Your task to perform on an android device: Clear the cart on amazon.com. Image 0: 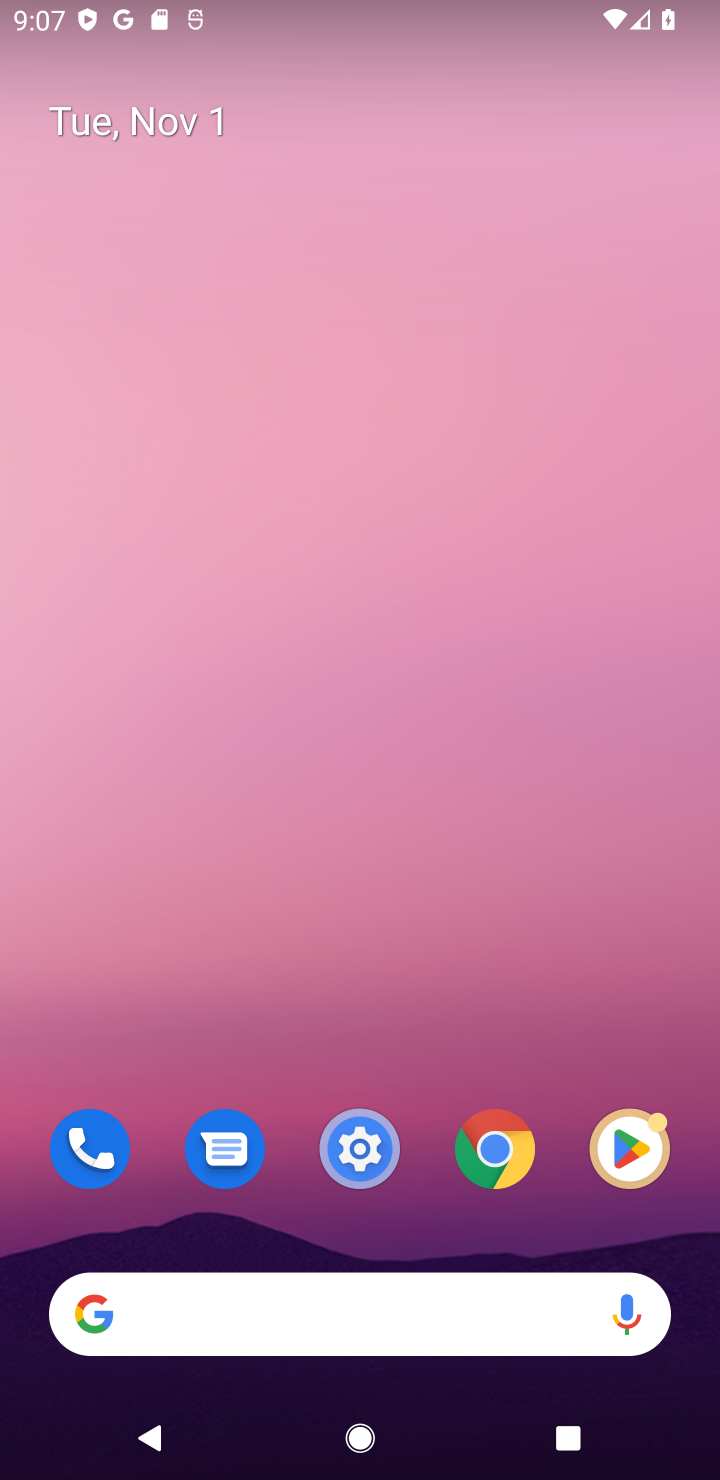
Step 0: press home button
Your task to perform on an android device: Clear the cart on amazon.com. Image 1: 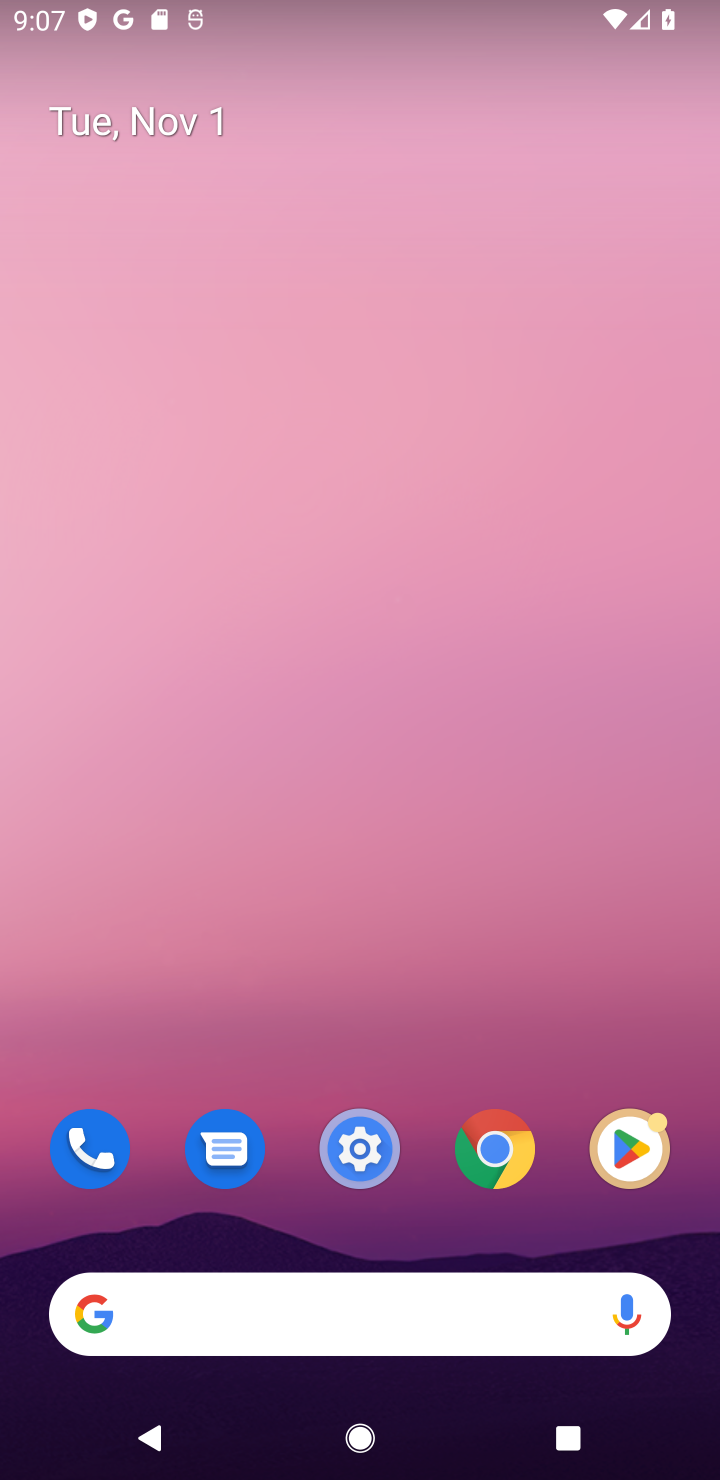
Step 1: click (145, 1304)
Your task to perform on an android device: Clear the cart on amazon.com. Image 2: 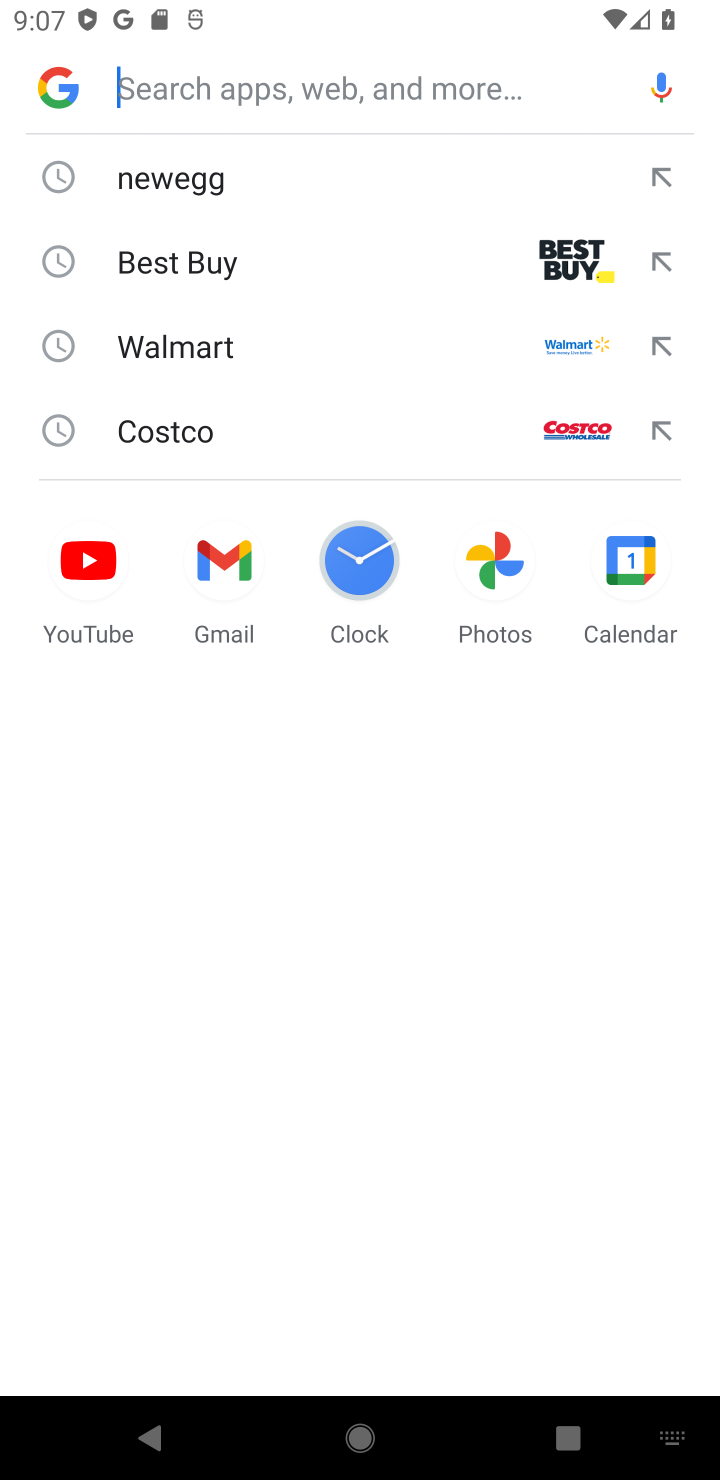
Step 2: press enter
Your task to perform on an android device: Clear the cart on amazon.com. Image 3: 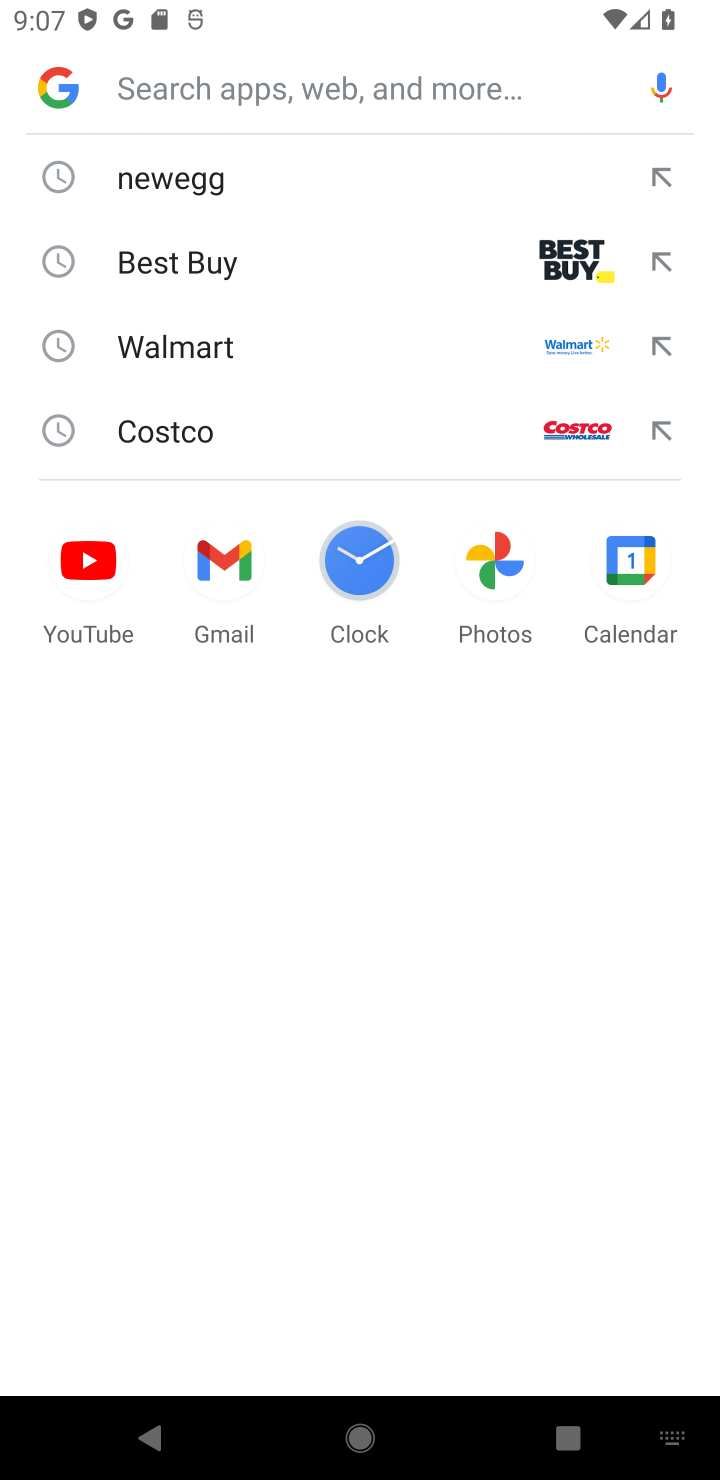
Step 3: type "amazon.com"
Your task to perform on an android device: Clear the cart on amazon.com. Image 4: 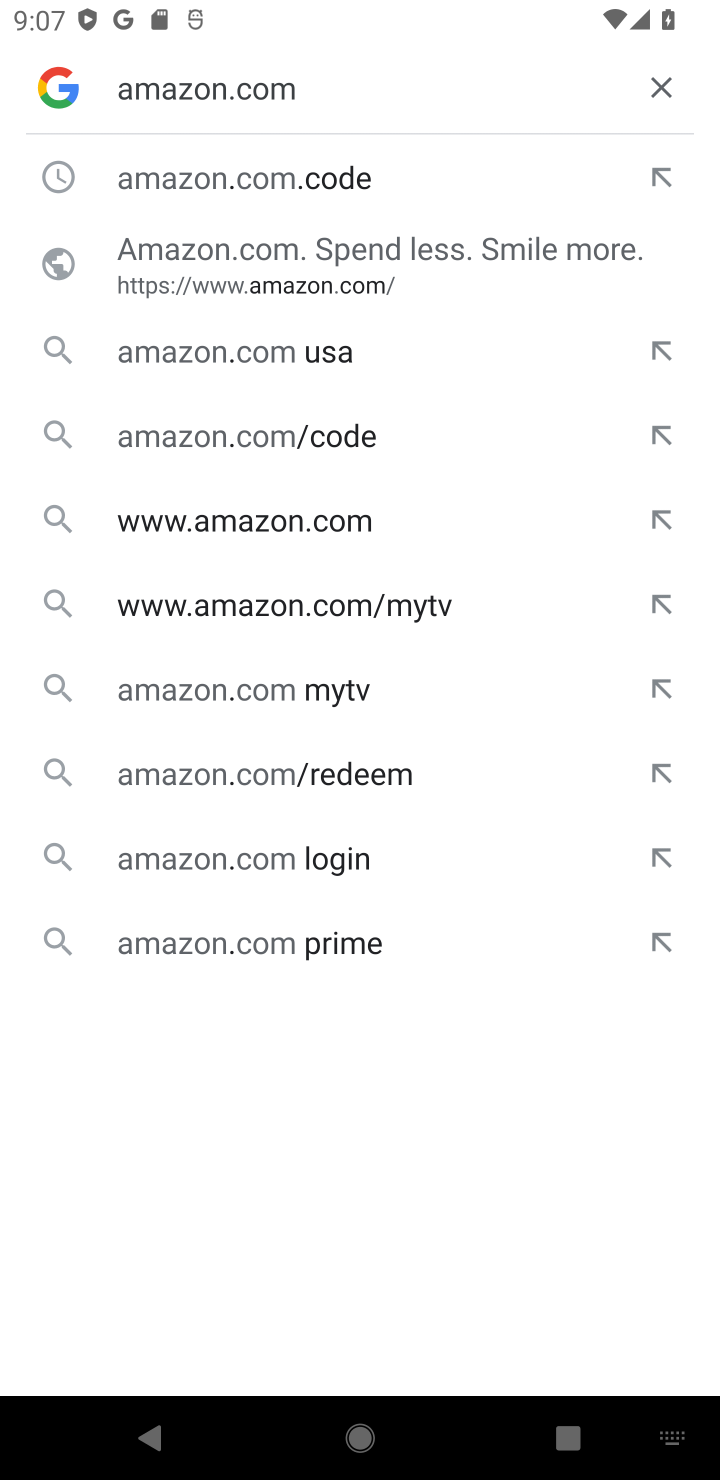
Step 4: press enter
Your task to perform on an android device: Clear the cart on amazon.com. Image 5: 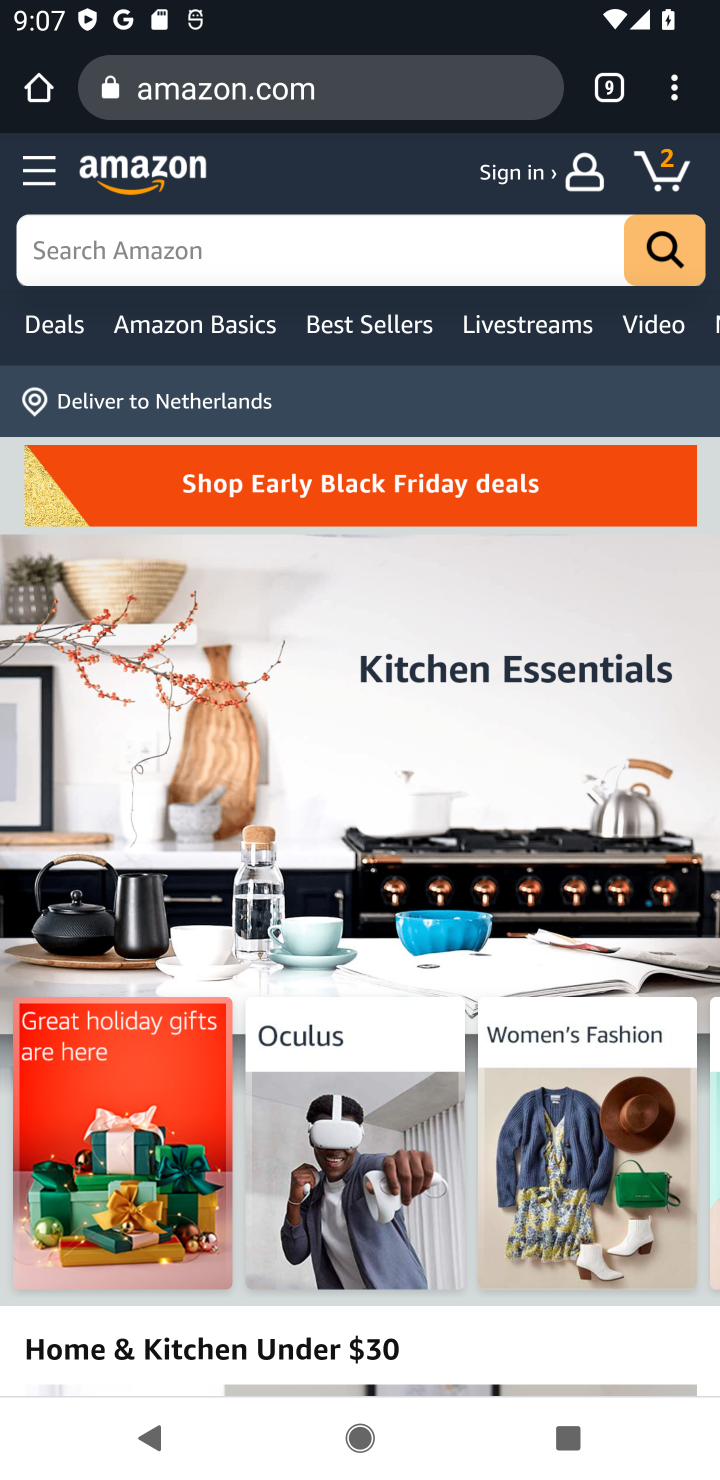
Step 5: click (663, 160)
Your task to perform on an android device: Clear the cart on amazon.com. Image 6: 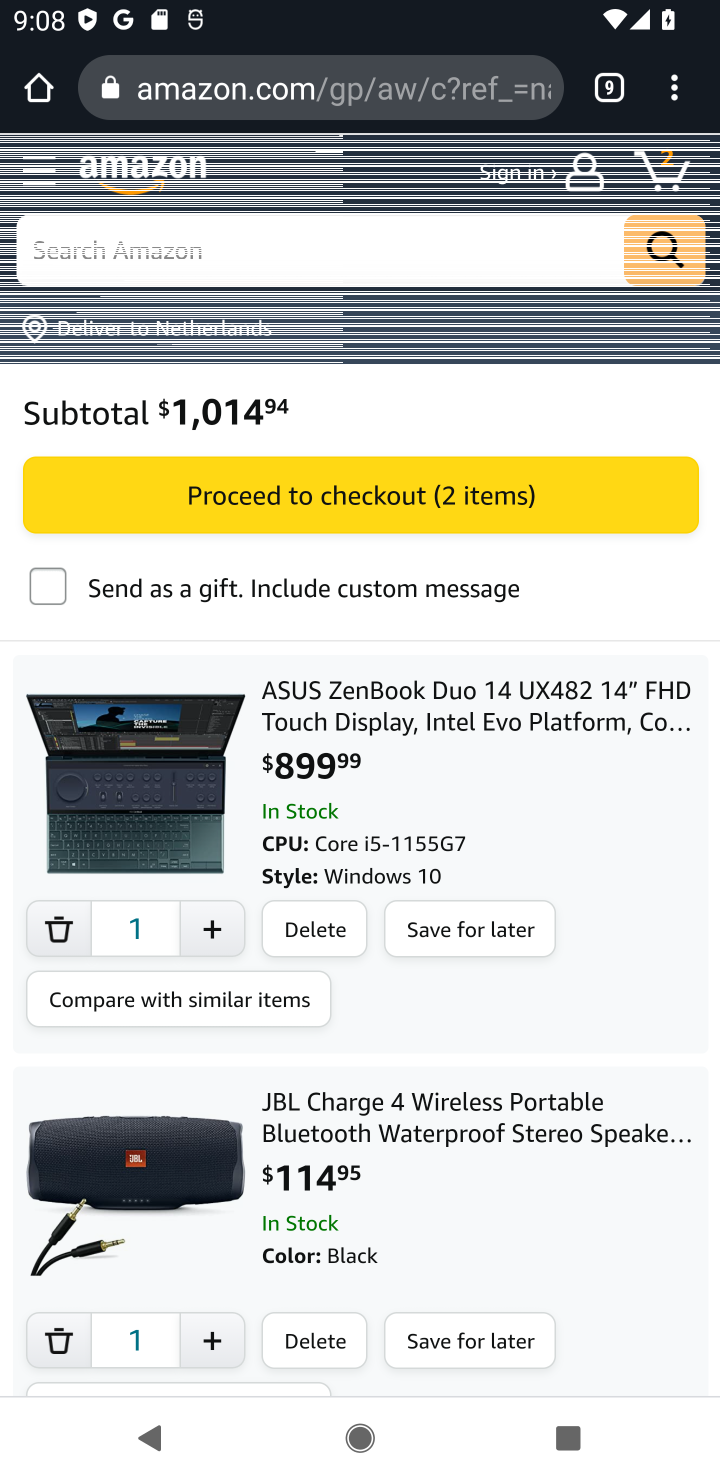
Step 6: click (59, 931)
Your task to perform on an android device: Clear the cart on amazon.com. Image 7: 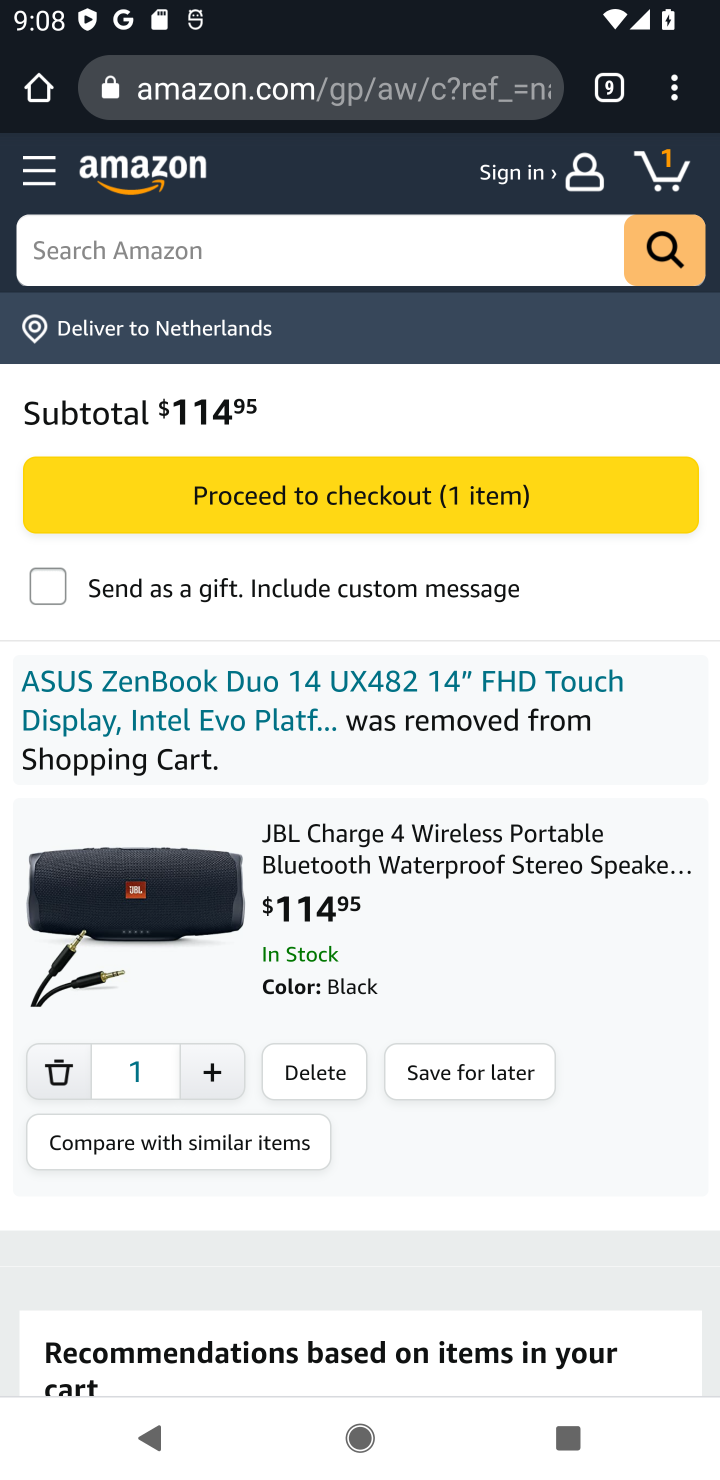
Step 7: click (50, 1065)
Your task to perform on an android device: Clear the cart on amazon.com. Image 8: 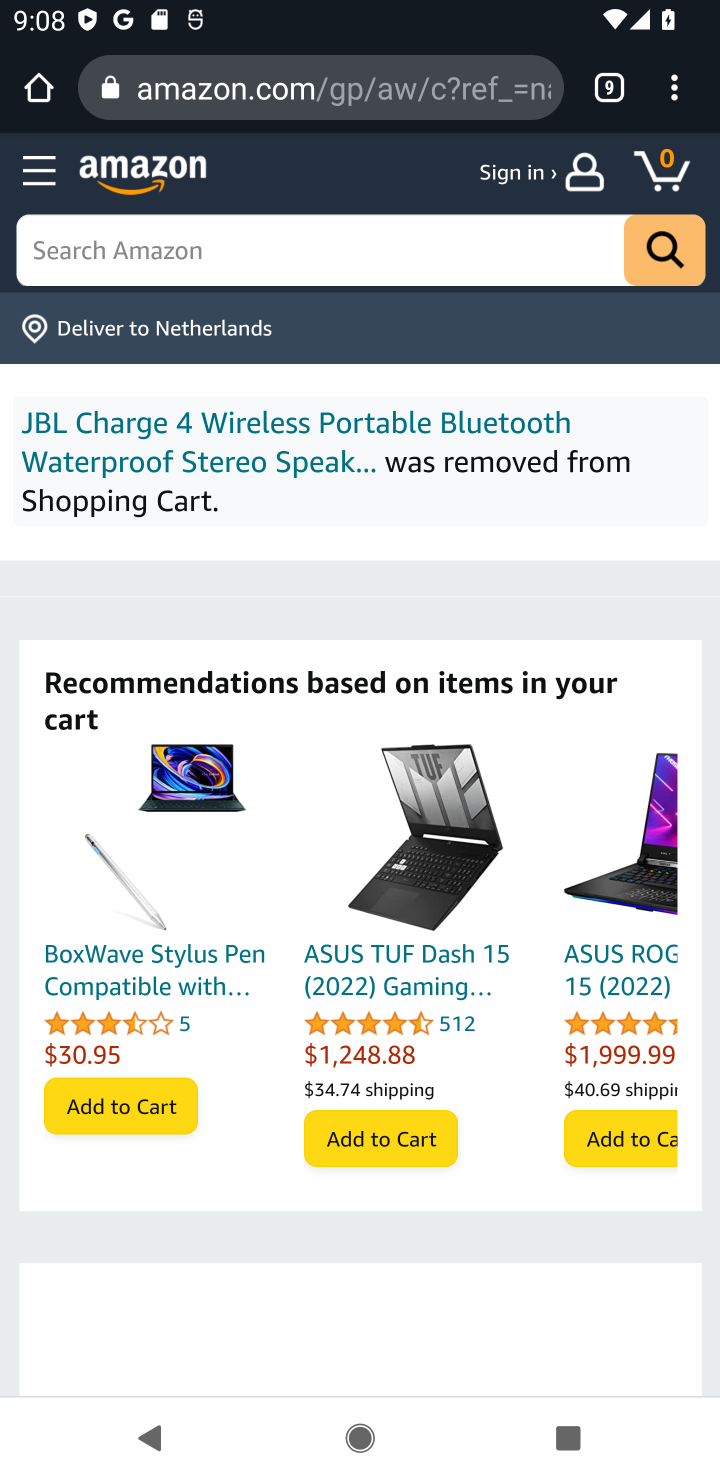
Step 8: task complete